Your task to perform on an android device: empty trash in google photos Image 0: 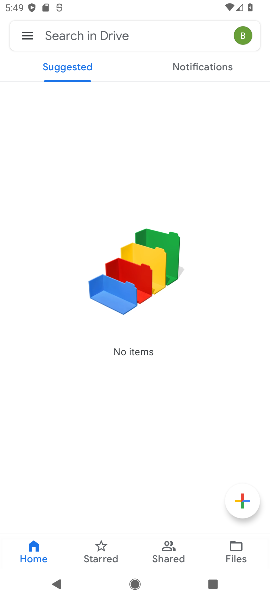
Step 0: press home button
Your task to perform on an android device: empty trash in google photos Image 1: 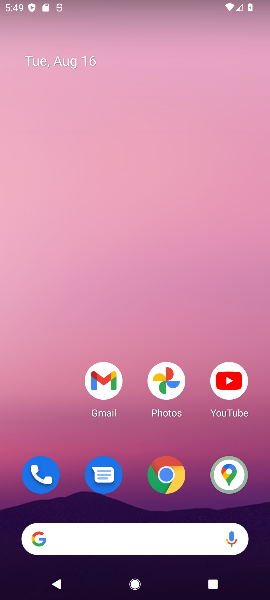
Step 1: click (174, 392)
Your task to perform on an android device: empty trash in google photos Image 2: 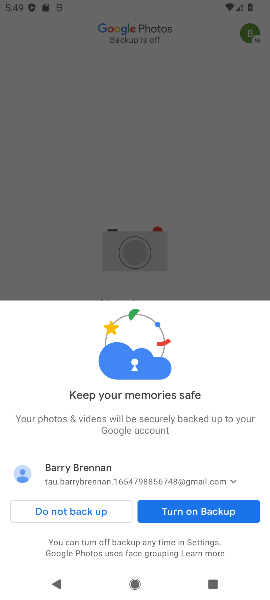
Step 2: click (189, 512)
Your task to perform on an android device: empty trash in google photos Image 3: 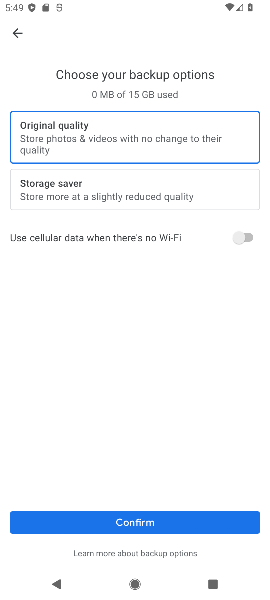
Step 3: click (155, 522)
Your task to perform on an android device: empty trash in google photos Image 4: 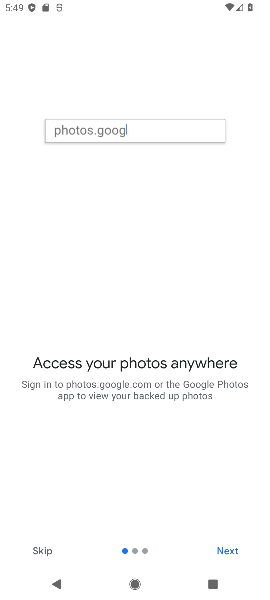
Step 4: click (213, 548)
Your task to perform on an android device: empty trash in google photos Image 5: 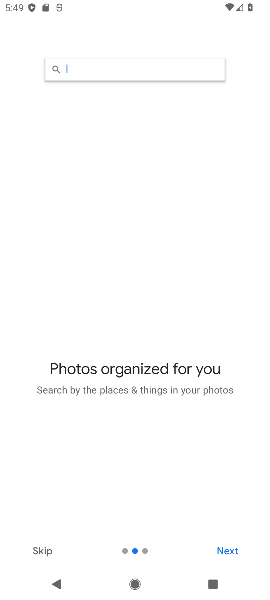
Step 5: click (221, 548)
Your task to perform on an android device: empty trash in google photos Image 6: 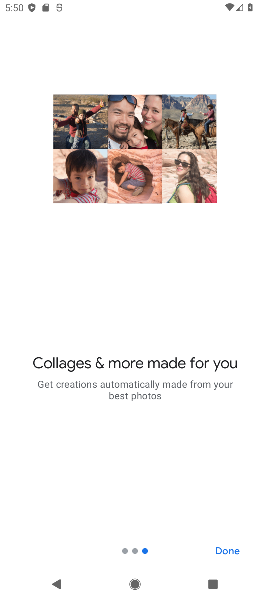
Step 6: click (221, 548)
Your task to perform on an android device: empty trash in google photos Image 7: 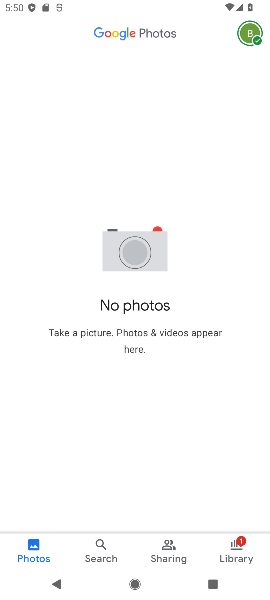
Step 7: click (250, 34)
Your task to perform on an android device: empty trash in google photos Image 8: 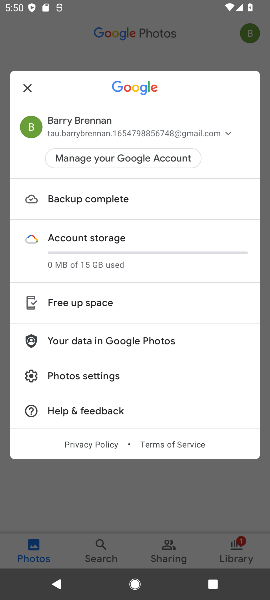
Step 8: task complete